Your task to perform on an android device: check google app version Image 0: 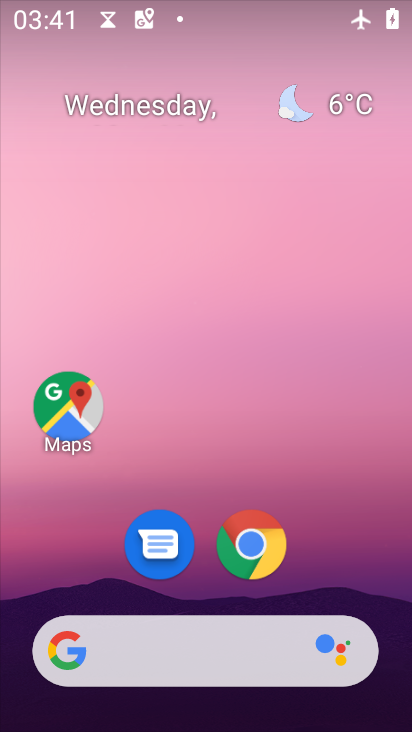
Step 0: drag from (310, 577) to (318, 77)
Your task to perform on an android device: check google app version Image 1: 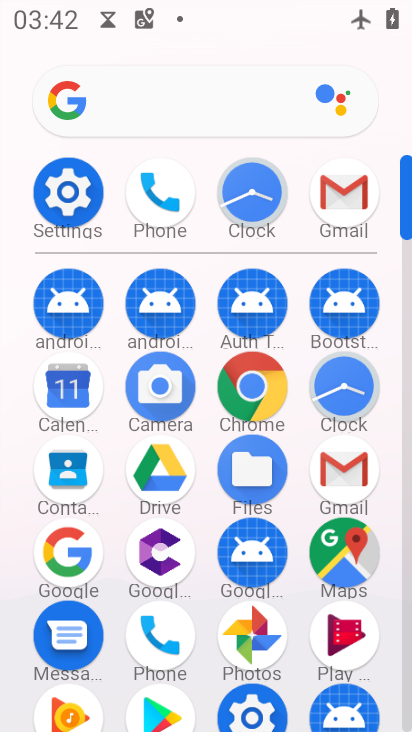
Step 1: click (68, 554)
Your task to perform on an android device: check google app version Image 2: 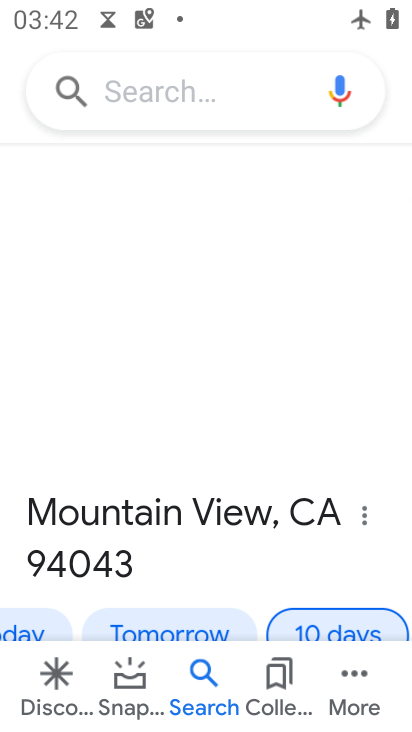
Step 2: click (353, 670)
Your task to perform on an android device: check google app version Image 3: 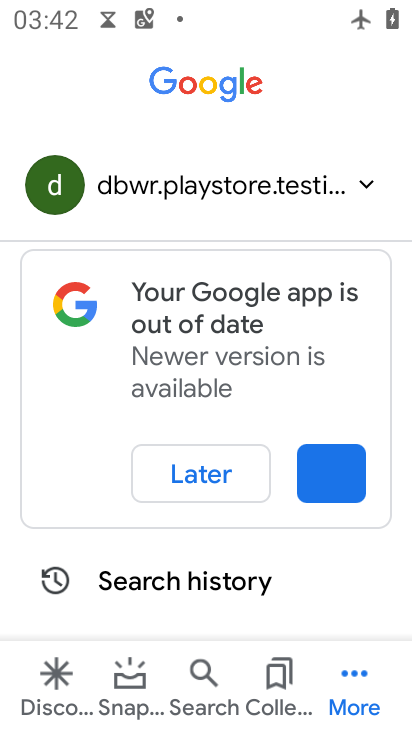
Step 3: drag from (280, 598) to (279, 115)
Your task to perform on an android device: check google app version Image 4: 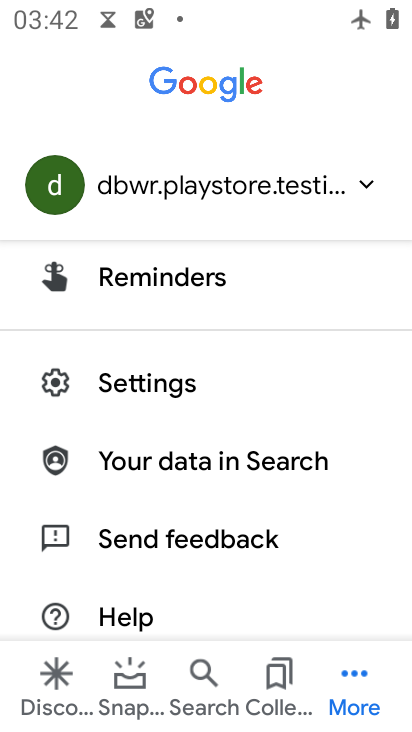
Step 4: click (165, 393)
Your task to perform on an android device: check google app version Image 5: 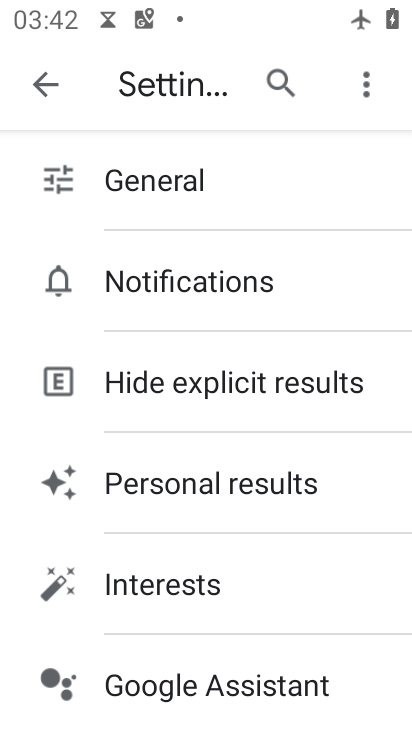
Step 5: drag from (156, 631) to (197, 239)
Your task to perform on an android device: check google app version Image 6: 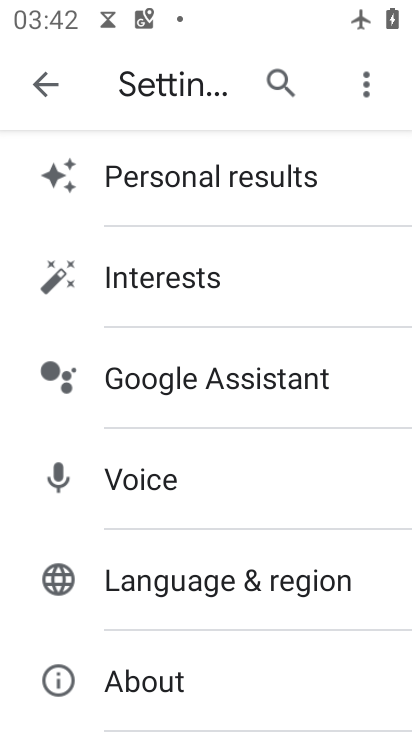
Step 6: click (231, 663)
Your task to perform on an android device: check google app version Image 7: 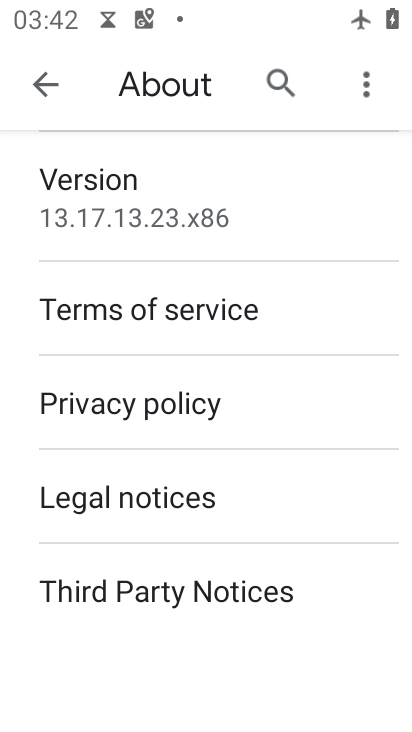
Step 7: click (175, 192)
Your task to perform on an android device: check google app version Image 8: 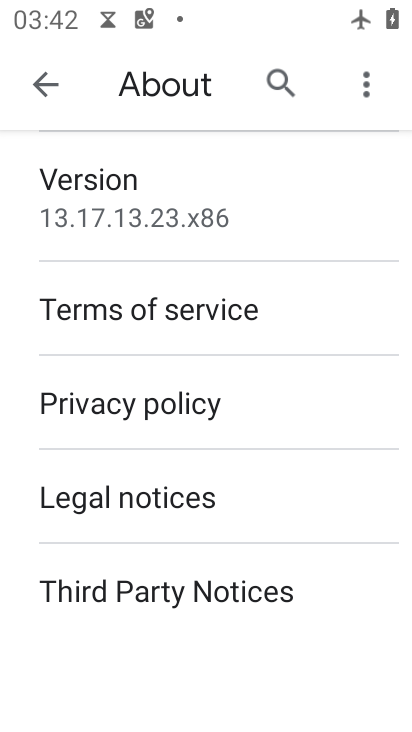
Step 8: task complete